Your task to perform on an android device: toggle wifi Image 0: 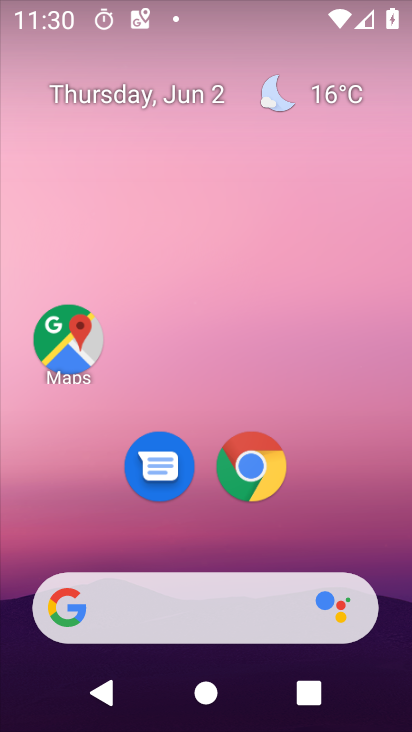
Step 0: drag from (241, 534) to (215, 204)
Your task to perform on an android device: toggle wifi Image 1: 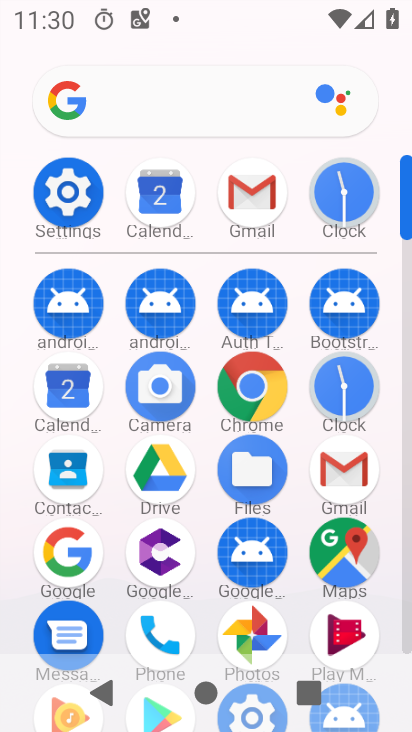
Step 1: click (80, 195)
Your task to perform on an android device: toggle wifi Image 2: 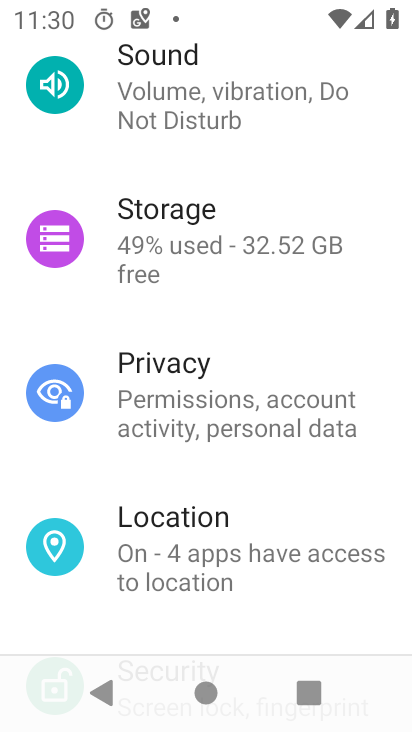
Step 2: drag from (242, 167) to (276, 563)
Your task to perform on an android device: toggle wifi Image 3: 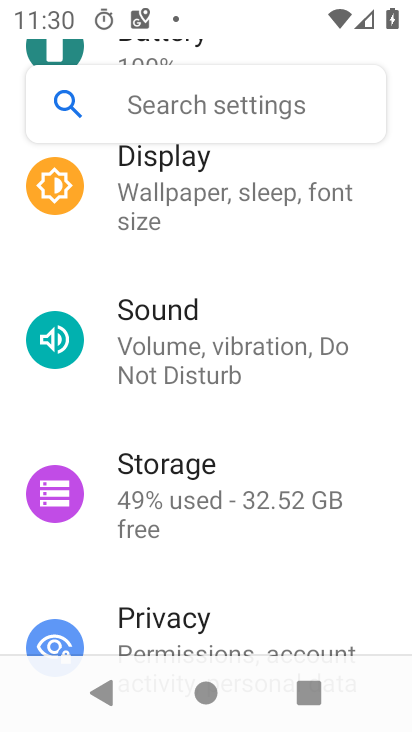
Step 3: drag from (251, 260) to (284, 488)
Your task to perform on an android device: toggle wifi Image 4: 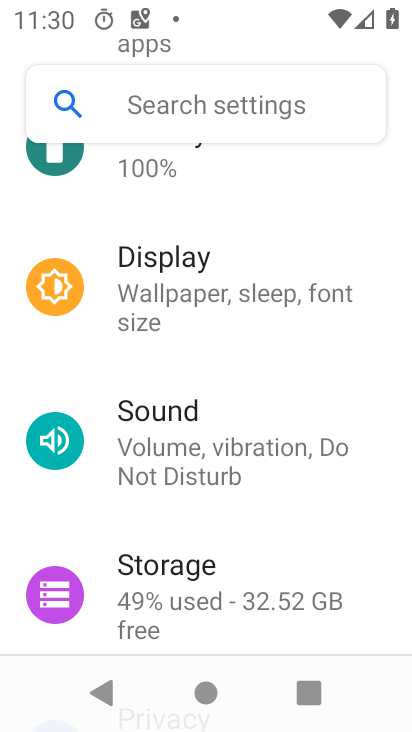
Step 4: drag from (265, 243) to (265, 530)
Your task to perform on an android device: toggle wifi Image 5: 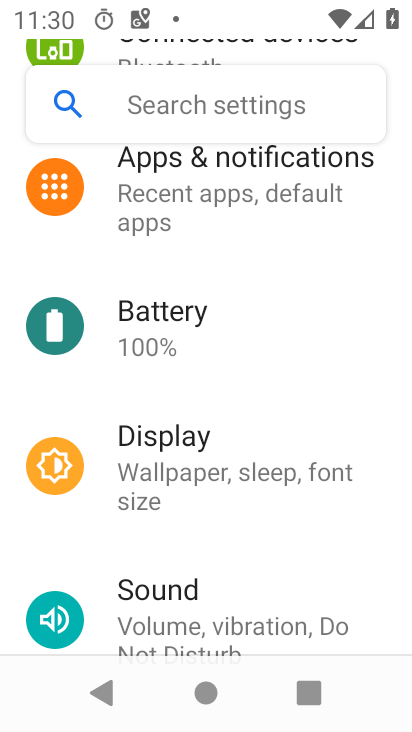
Step 5: drag from (254, 178) to (266, 459)
Your task to perform on an android device: toggle wifi Image 6: 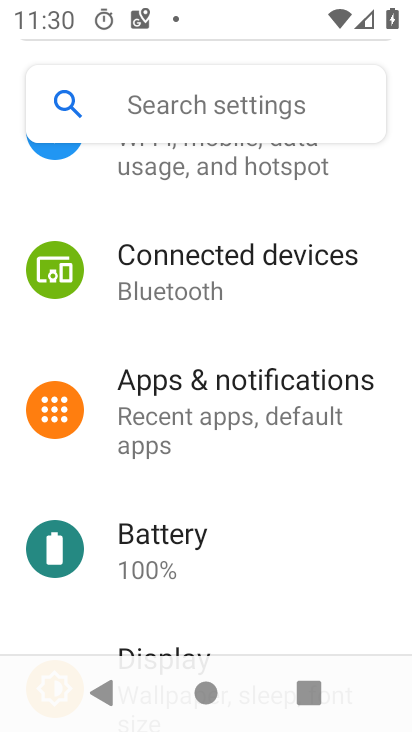
Step 6: drag from (247, 226) to (266, 493)
Your task to perform on an android device: toggle wifi Image 7: 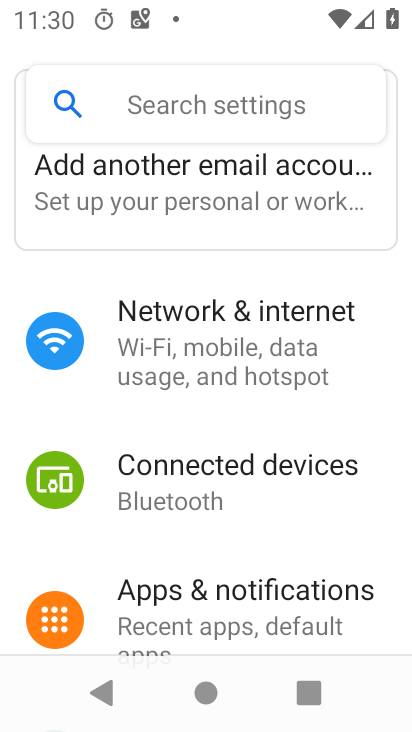
Step 7: click (231, 318)
Your task to perform on an android device: toggle wifi Image 8: 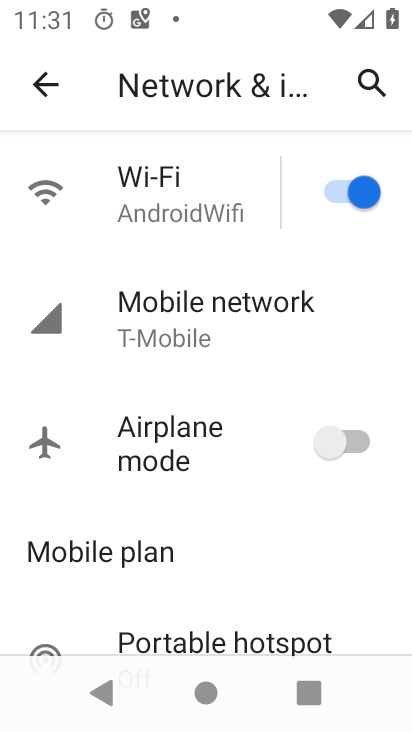
Step 8: click (333, 193)
Your task to perform on an android device: toggle wifi Image 9: 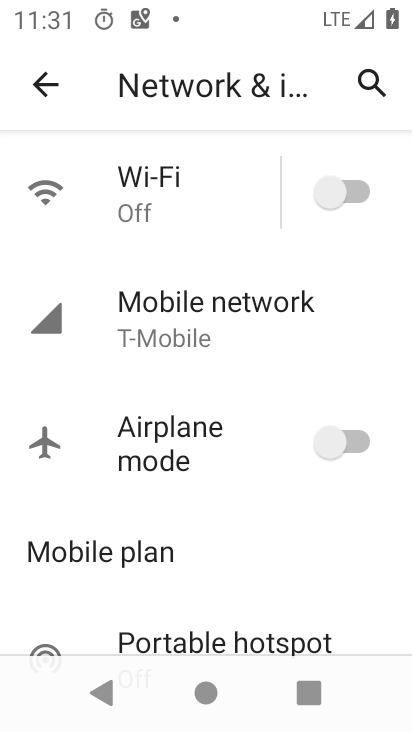
Step 9: task complete